Your task to perform on an android device: toggle pop-ups in chrome Image 0: 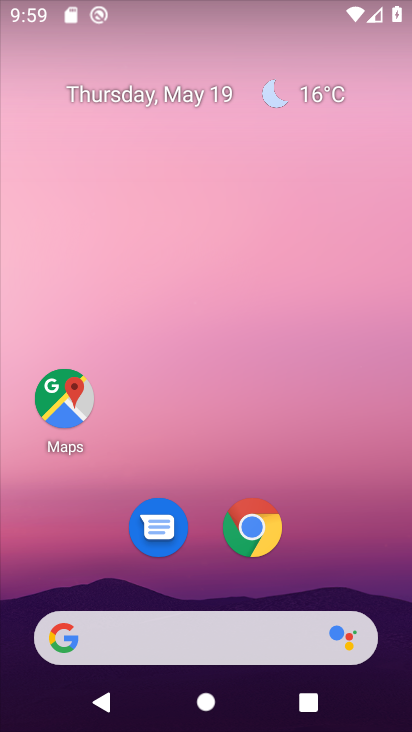
Step 0: click (236, 535)
Your task to perform on an android device: toggle pop-ups in chrome Image 1: 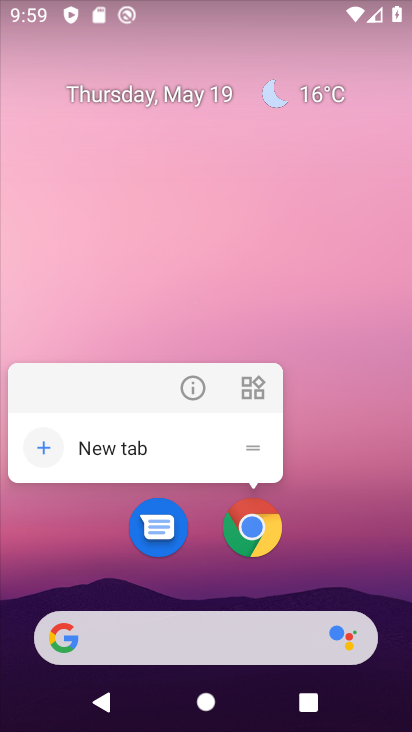
Step 1: click (251, 539)
Your task to perform on an android device: toggle pop-ups in chrome Image 2: 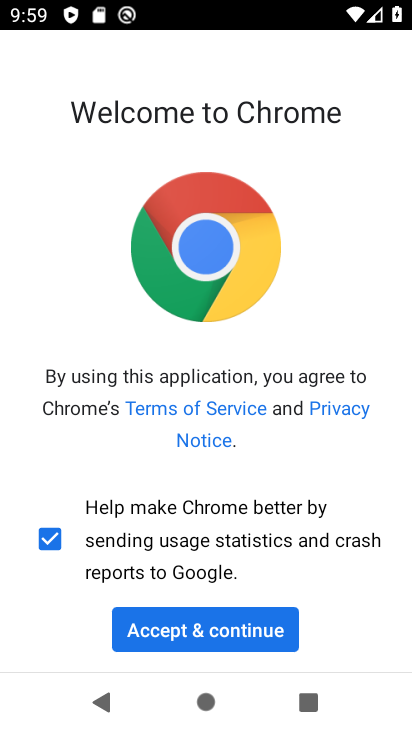
Step 2: click (189, 623)
Your task to perform on an android device: toggle pop-ups in chrome Image 3: 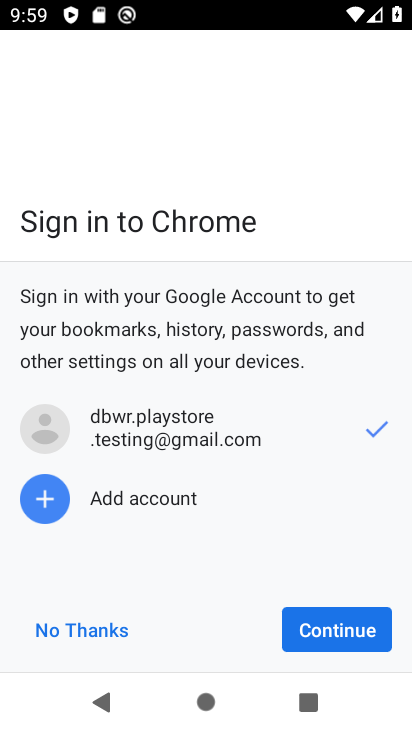
Step 3: click (321, 630)
Your task to perform on an android device: toggle pop-ups in chrome Image 4: 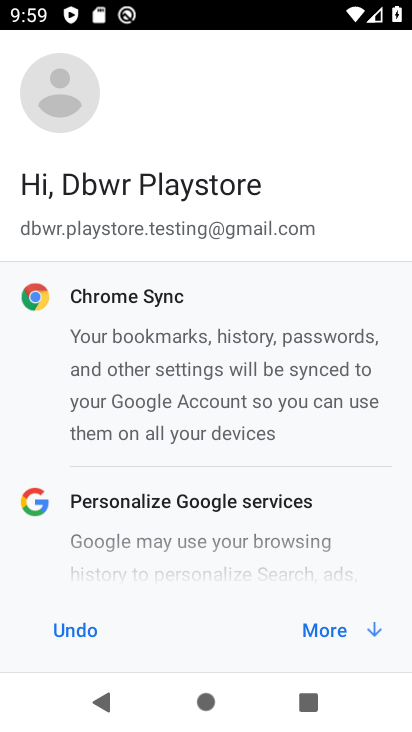
Step 4: click (330, 636)
Your task to perform on an android device: toggle pop-ups in chrome Image 5: 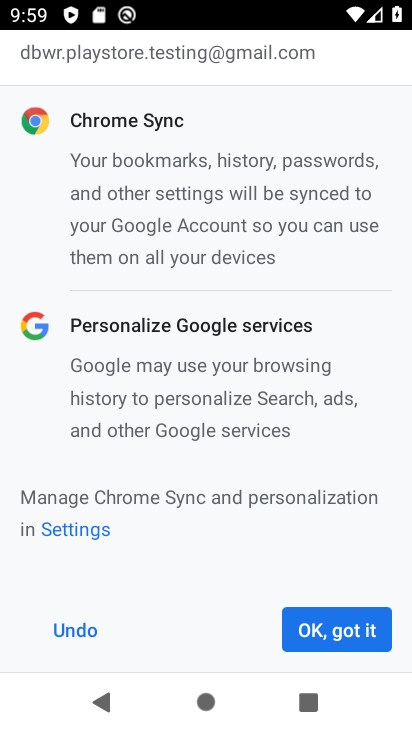
Step 5: click (372, 634)
Your task to perform on an android device: toggle pop-ups in chrome Image 6: 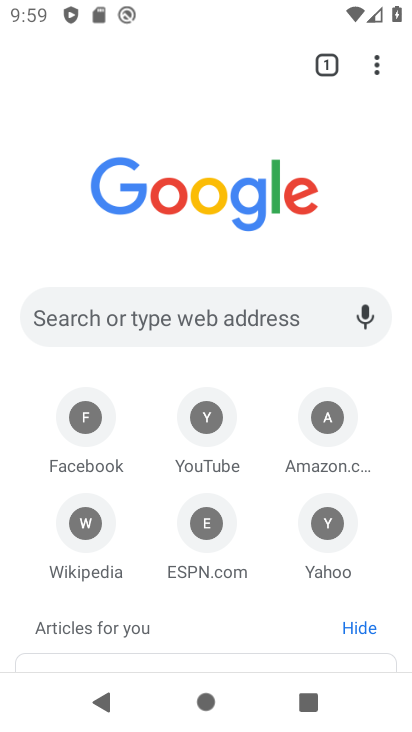
Step 6: click (388, 61)
Your task to perform on an android device: toggle pop-ups in chrome Image 7: 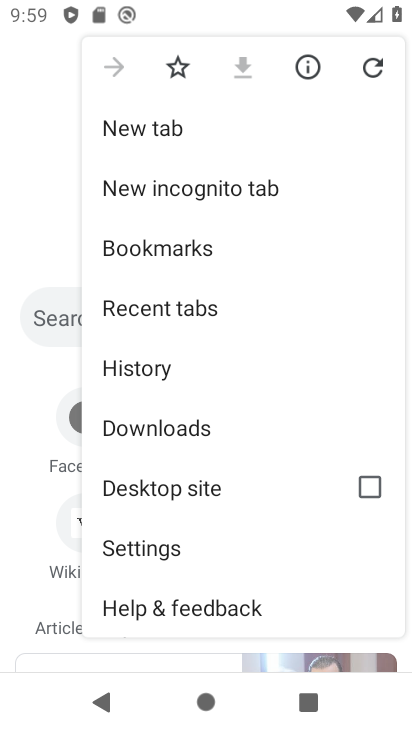
Step 7: drag from (186, 597) to (187, 282)
Your task to perform on an android device: toggle pop-ups in chrome Image 8: 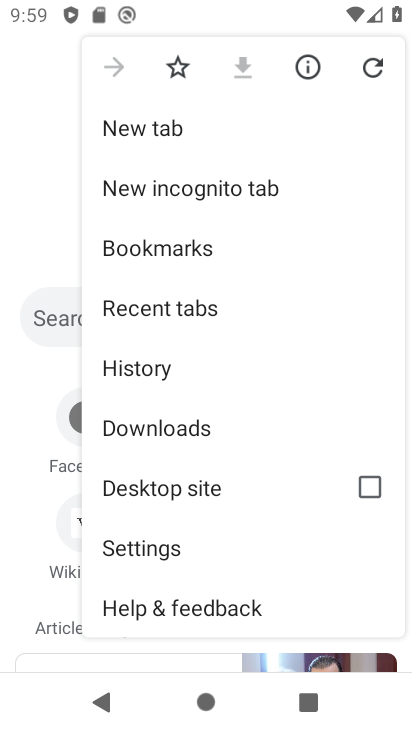
Step 8: click (149, 548)
Your task to perform on an android device: toggle pop-ups in chrome Image 9: 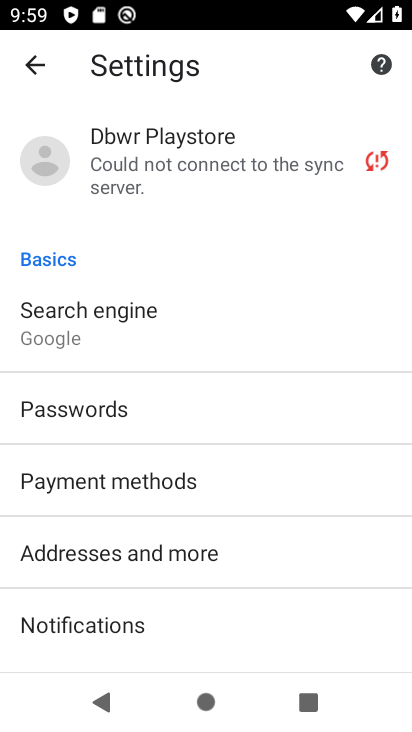
Step 9: drag from (150, 632) to (210, 198)
Your task to perform on an android device: toggle pop-ups in chrome Image 10: 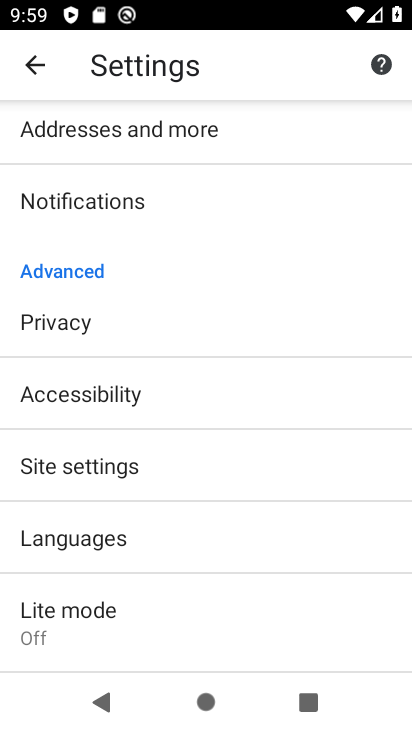
Step 10: drag from (124, 613) to (187, 172)
Your task to perform on an android device: toggle pop-ups in chrome Image 11: 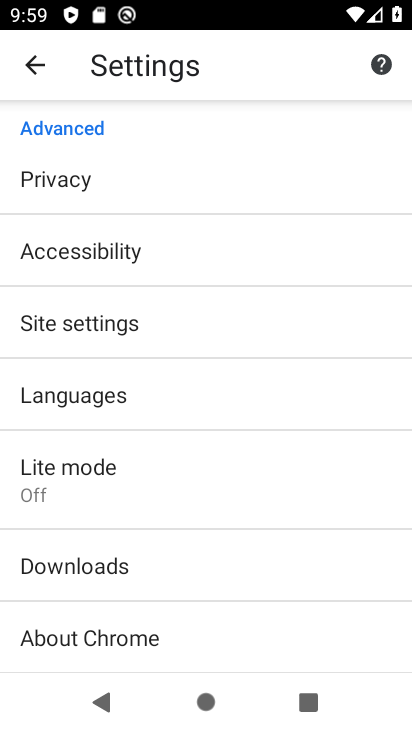
Step 11: click (103, 319)
Your task to perform on an android device: toggle pop-ups in chrome Image 12: 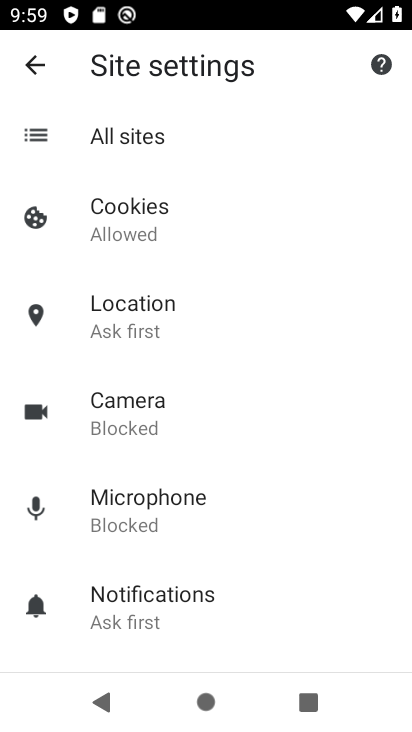
Step 12: drag from (137, 644) to (170, 243)
Your task to perform on an android device: toggle pop-ups in chrome Image 13: 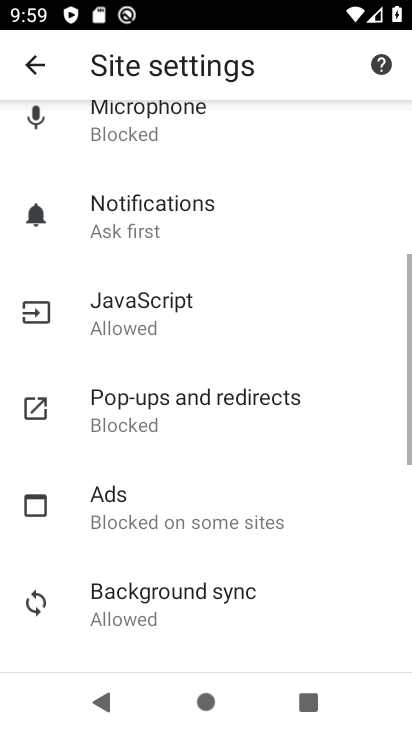
Step 13: click (160, 407)
Your task to perform on an android device: toggle pop-ups in chrome Image 14: 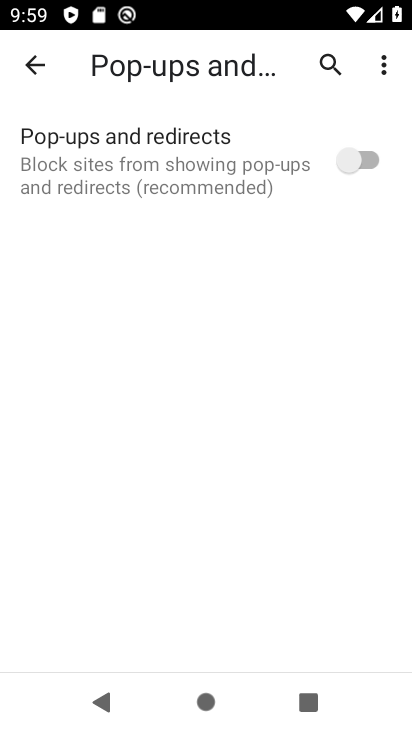
Step 14: click (367, 159)
Your task to perform on an android device: toggle pop-ups in chrome Image 15: 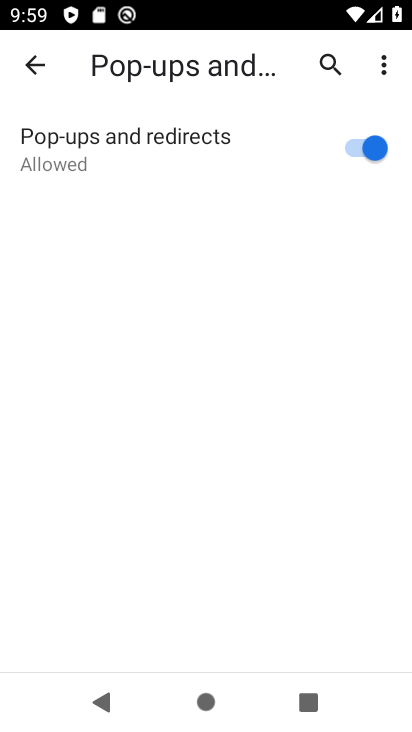
Step 15: task complete